Your task to perform on an android device: Go to display settings Image 0: 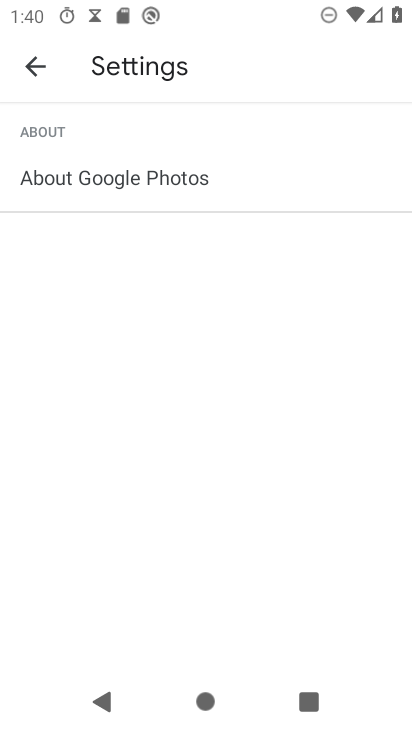
Step 0: press home button
Your task to perform on an android device: Go to display settings Image 1: 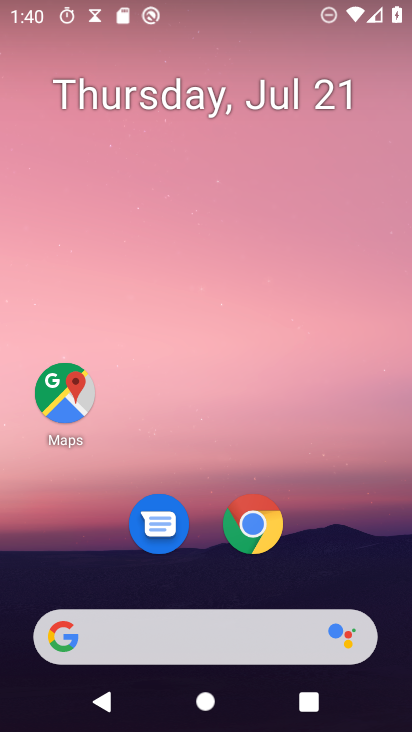
Step 1: drag from (222, 614) to (341, 145)
Your task to perform on an android device: Go to display settings Image 2: 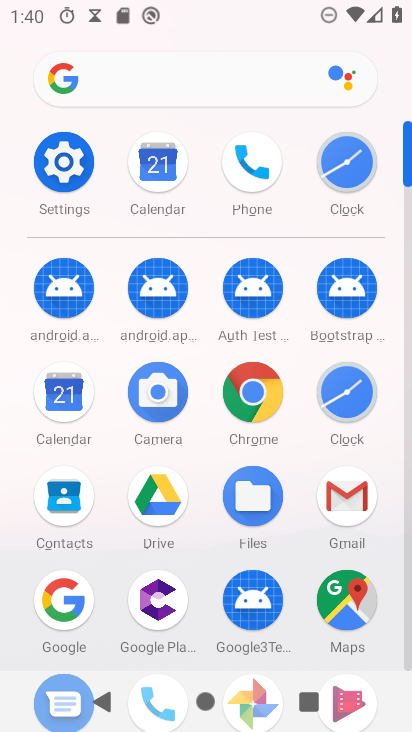
Step 2: click (56, 159)
Your task to perform on an android device: Go to display settings Image 3: 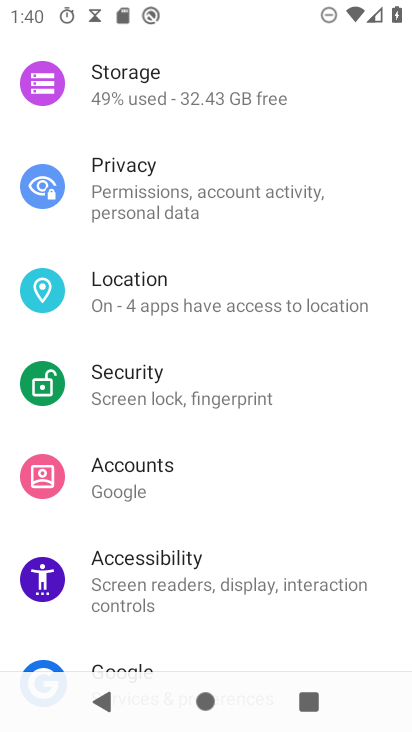
Step 3: drag from (356, 213) to (277, 408)
Your task to perform on an android device: Go to display settings Image 4: 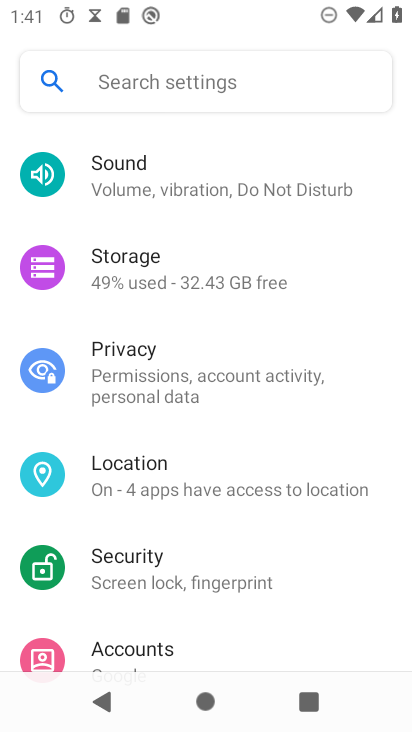
Step 4: drag from (274, 216) to (251, 301)
Your task to perform on an android device: Go to display settings Image 5: 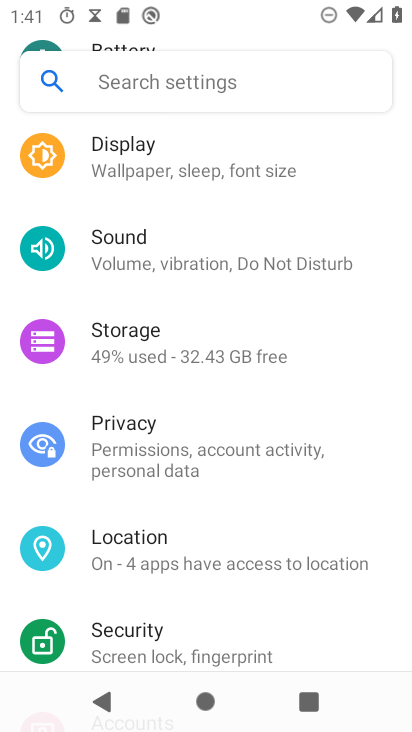
Step 5: click (198, 183)
Your task to perform on an android device: Go to display settings Image 6: 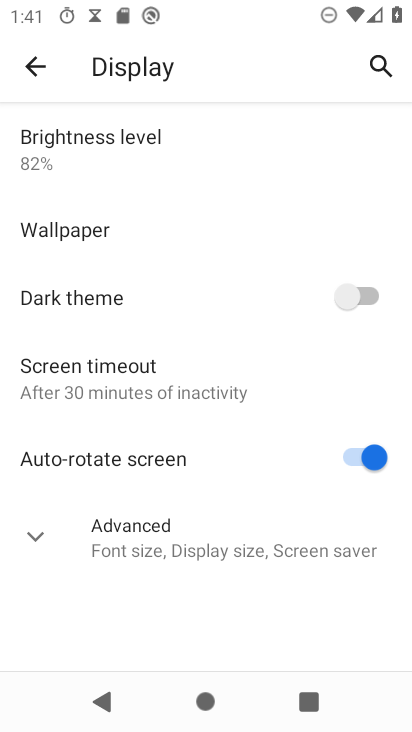
Step 6: task complete